Your task to perform on an android device: delete location history Image 0: 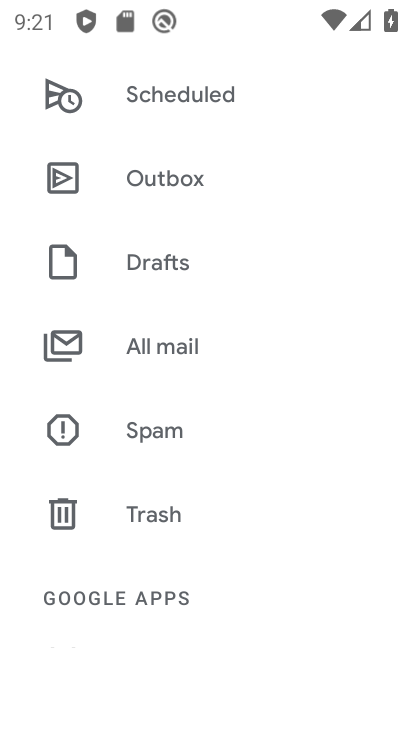
Step 0: press home button
Your task to perform on an android device: delete location history Image 1: 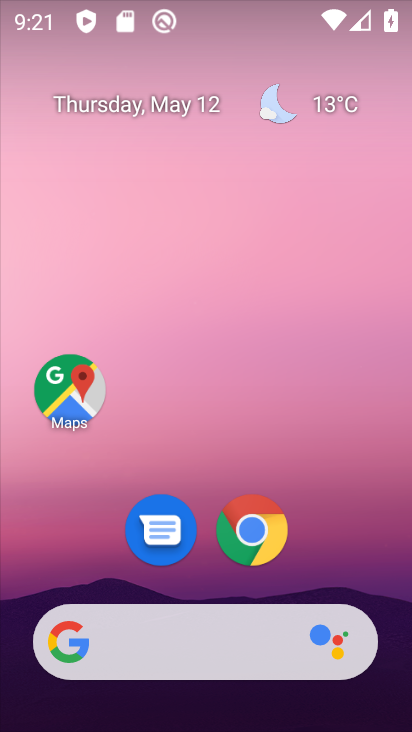
Step 1: drag from (316, 456) to (310, 333)
Your task to perform on an android device: delete location history Image 2: 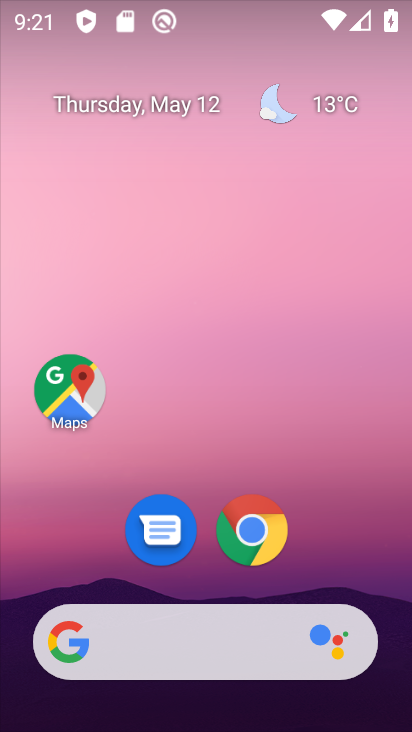
Step 2: drag from (354, 545) to (257, 125)
Your task to perform on an android device: delete location history Image 3: 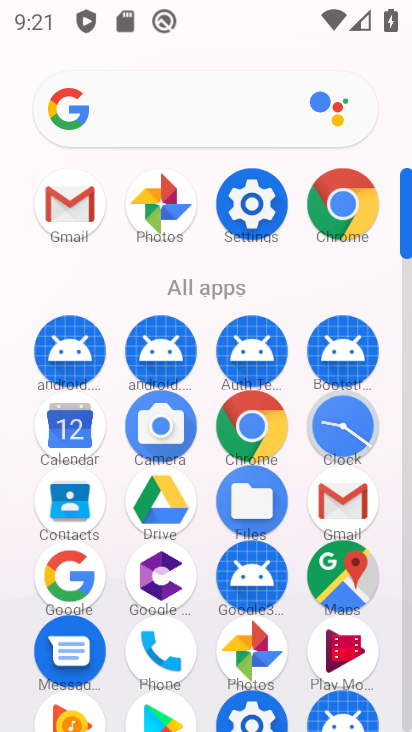
Step 3: click (246, 210)
Your task to perform on an android device: delete location history Image 4: 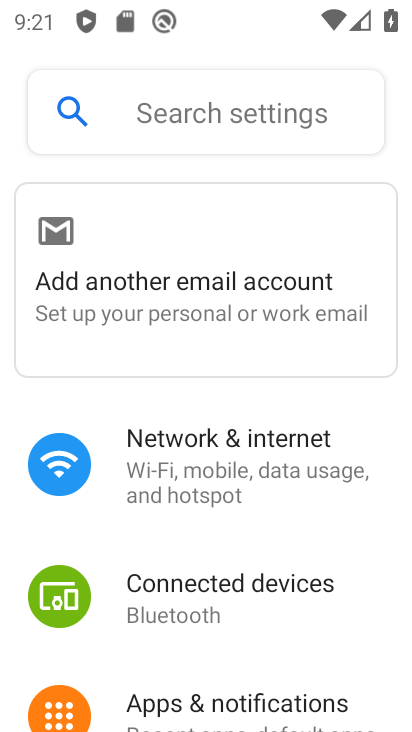
Step 4: drag from (258, 652) to (269, 320)
Your task to perform on an android device: delete location history Image 5: 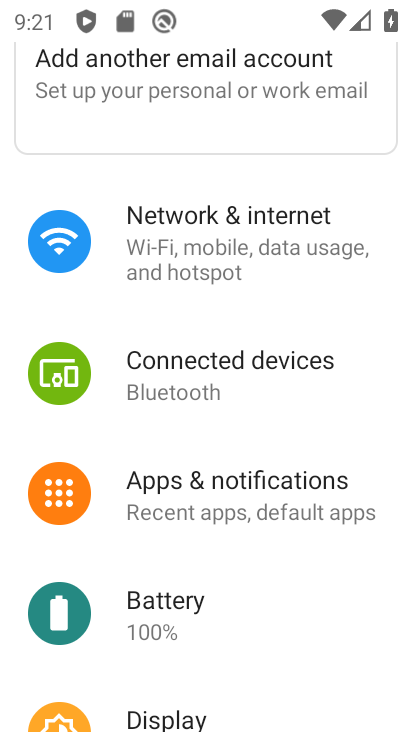
Step 5: drag from (269, 576) to (281, 233)
Your task to perform on an android device: delete location history Image 6: 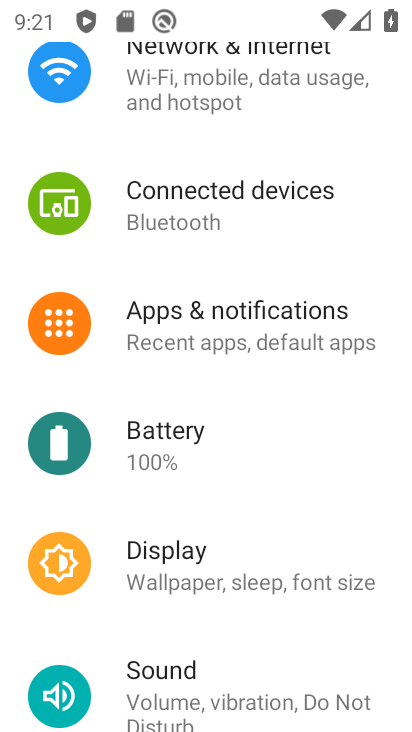
Step 6: drag from (235, 614) to (220, 249)
Your task to perform on an android device: delete location history Image 7: 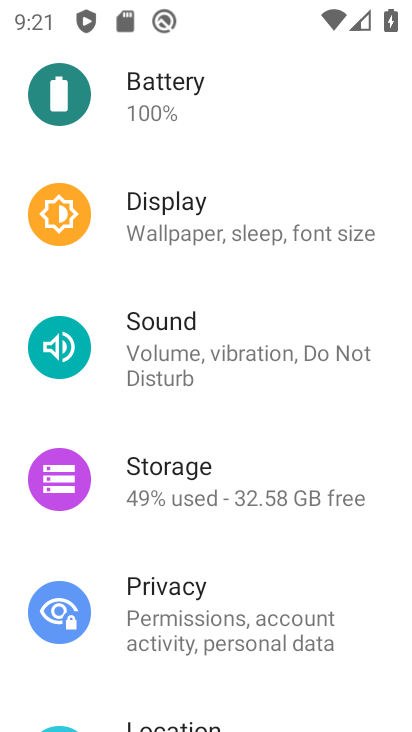
Step 7: drag from (238, 554) to (243, 55)
Your task to perform on an android device: delete location history Image 8: 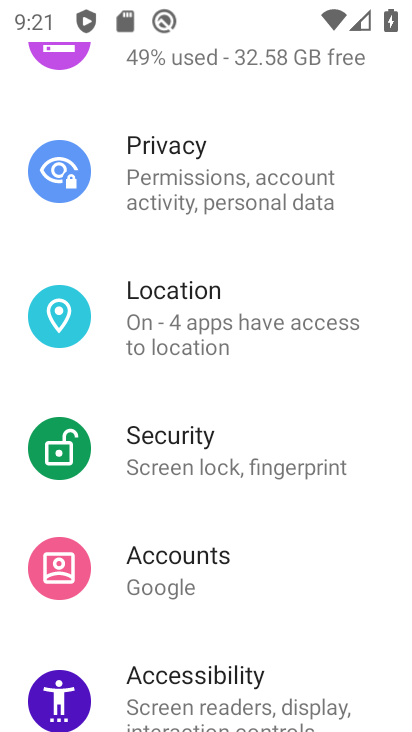
Step 8: click (239, 287)
Your task to perform on an android device: delete location history Image 9: 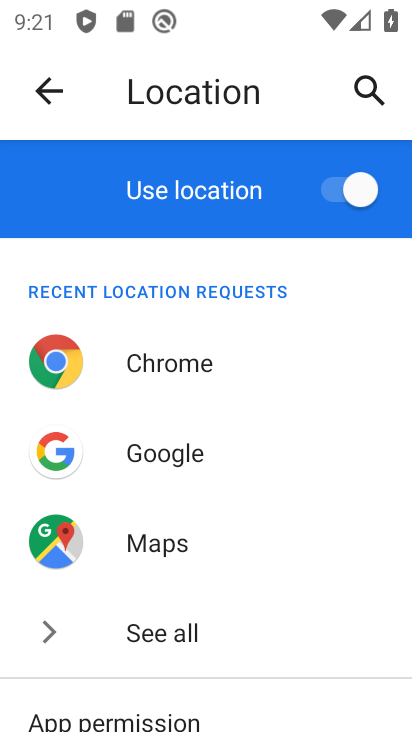
Step 9: drag from (311, 683) to (305, 192)
Your task to perform on an android device: delete location history Image 10: 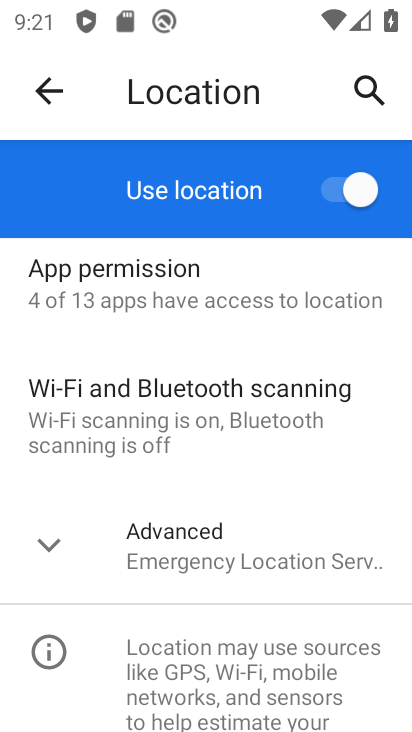
Step 10: drag from (263, 645) to (245, 307)
Your task to perform on an android device: delete location history Image 11: 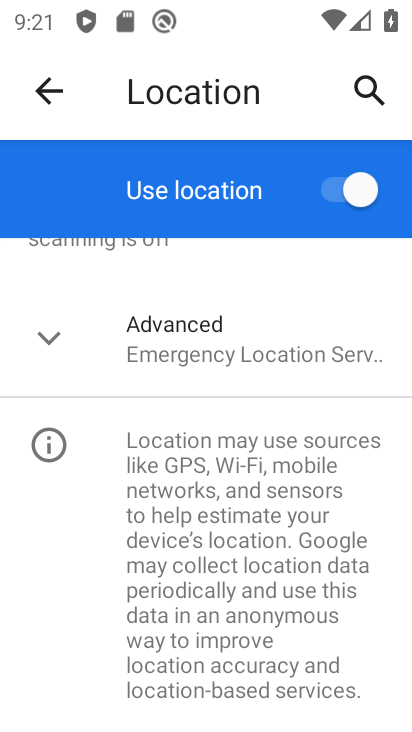
Step 11: click (216, 342)
Your task to perform on an android device: delete location history Image 12: 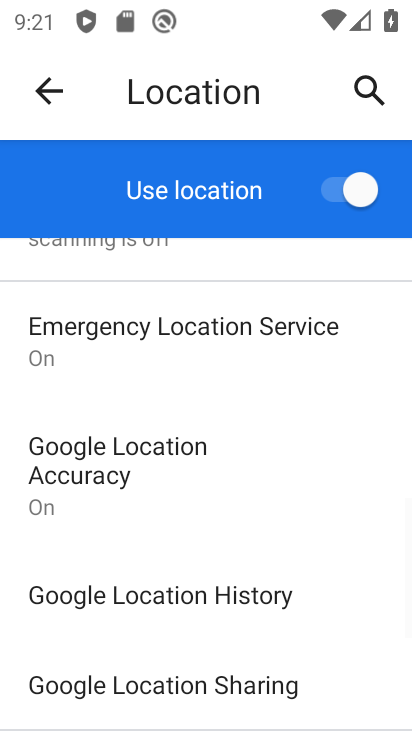
Step 12: drag from (274, 614) to (252, 265)
Your task to perform on an android device: delete location history Image 13: 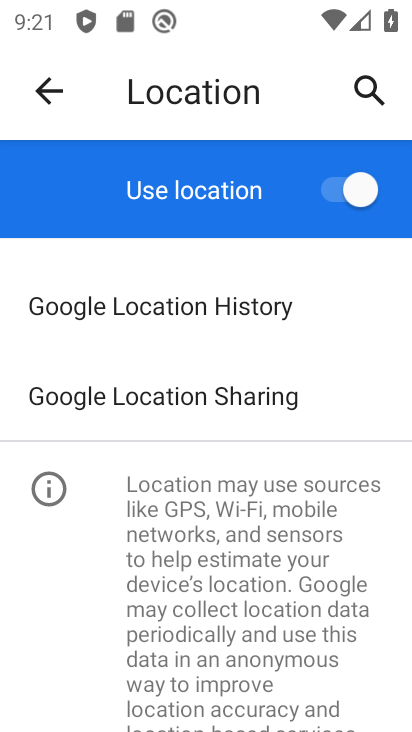
Step 13: click (181, 294)
Your task to perform on an android device: delete location history Image 14: 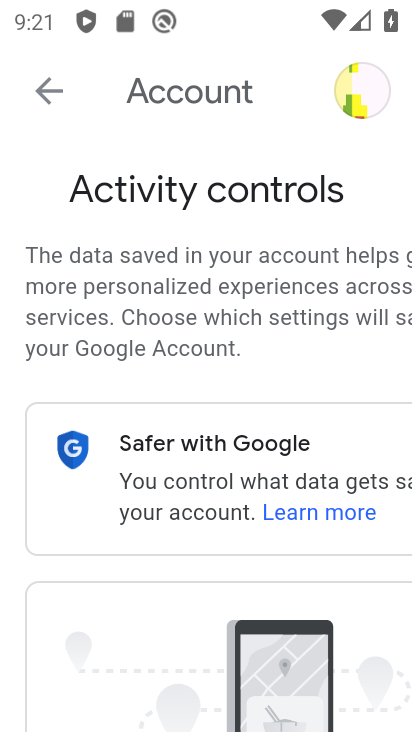
Step 14: drag from (310, 375) to (267, 79)
Your task to perform on an android device: delete location history Image 15: 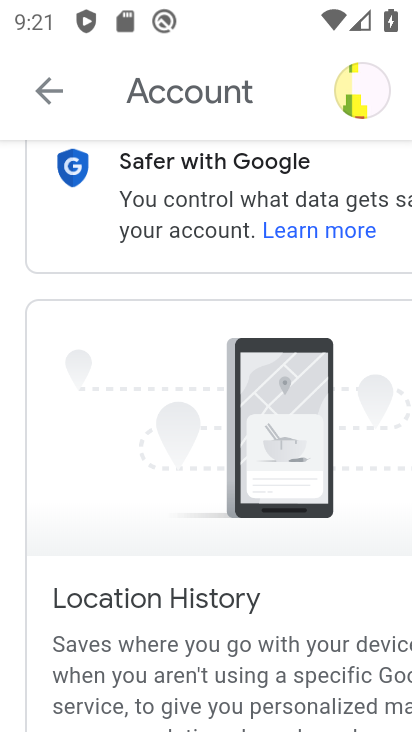
Step 15: drag from (271, 633) to (250, 204)
Your task to perform on an android device: delete location history Image 16: 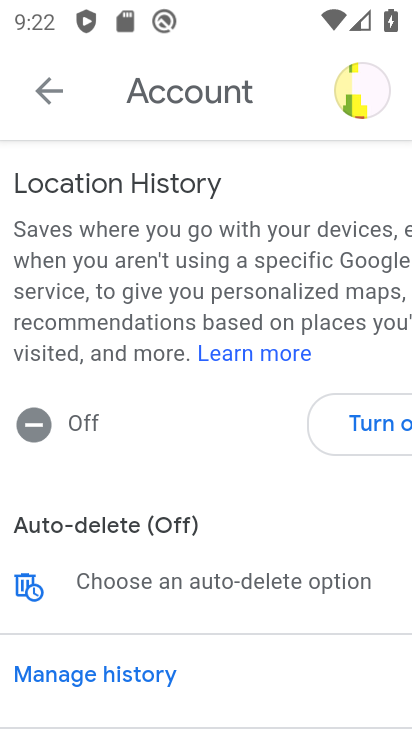
Step 16: drag from (294, 496) to (290, 81)
Your task to perform on an android device: delete location history Image 17: 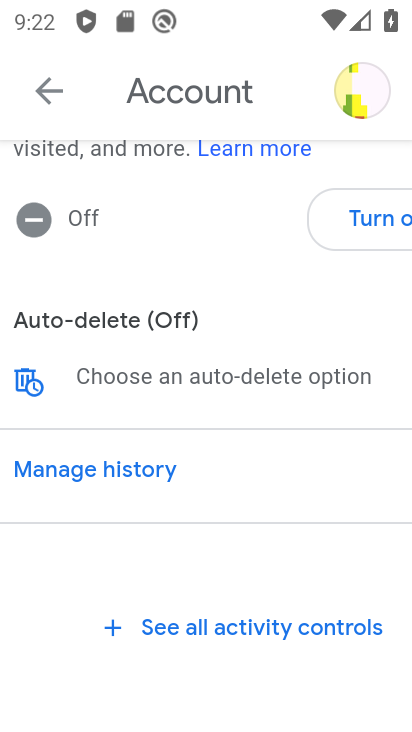
Step 17: click (126, 466)
Your task to perform on an android device: delete location history Image 18: 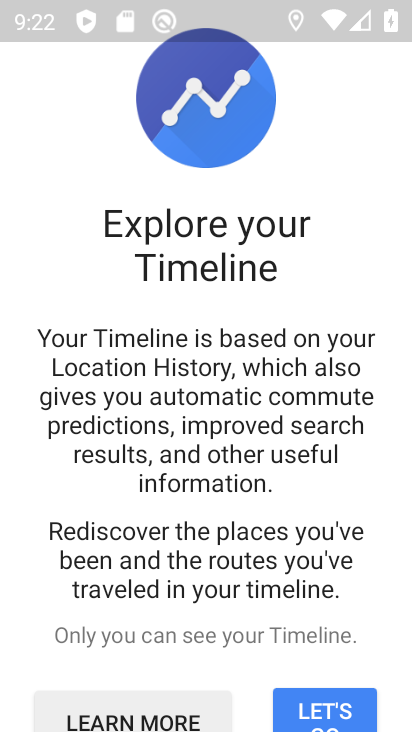
Step 18: task complete